Your task to perform on an android device: see sites visited before in the chrome app Image 0: 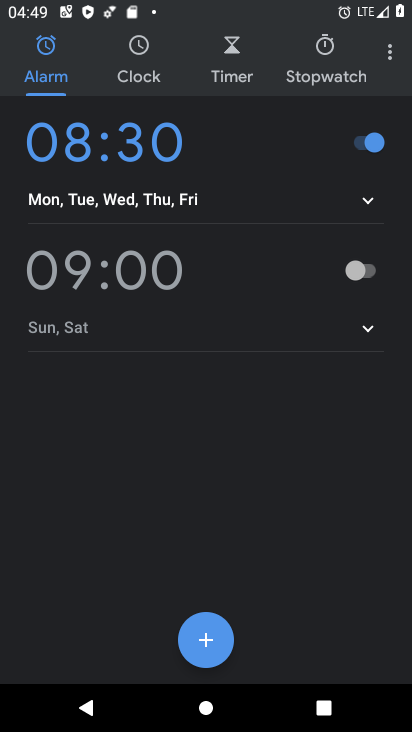
Step 0: press home button
Your task to perform on an android device: see sites visited before in the chrome app Image 1: 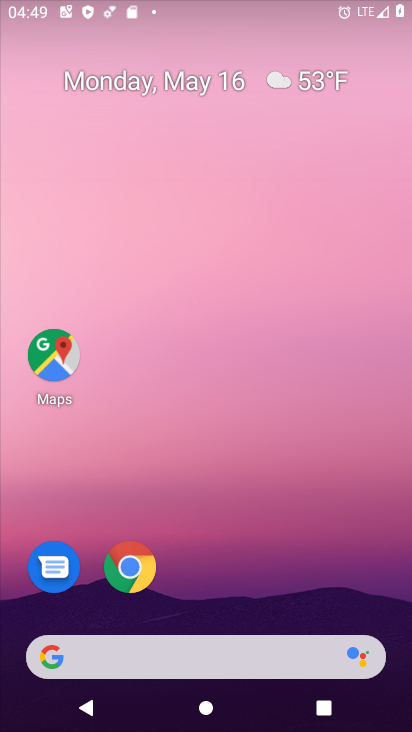
Step 1: drag from (262, 683) to (231, 75)
Your task to perform on an android device: see sites visited before in the chrome app Image 2: 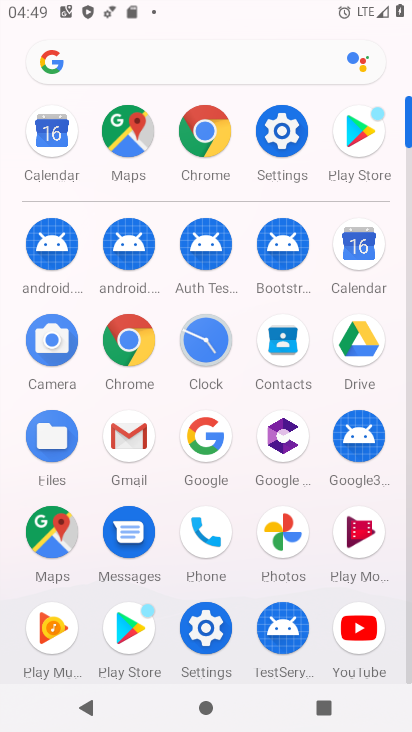
Step 2: click (138, 340)
Your task to perform on an android device: see sites visited before in the chrome app Image 3: 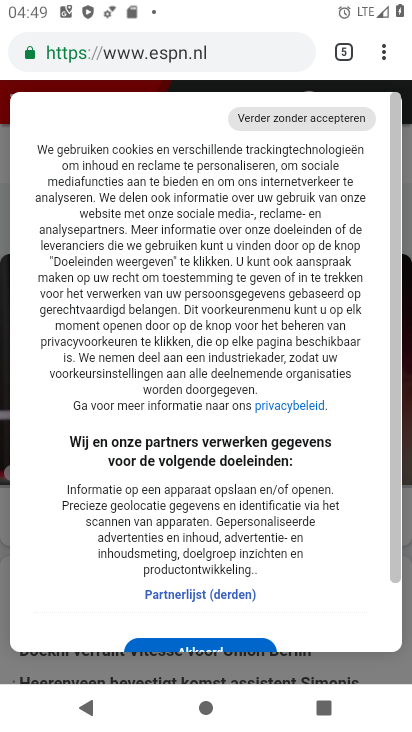
Step 3: click (385, 45)
Your task to perform on an android device: see sites visited before in the chrome app Image 4: 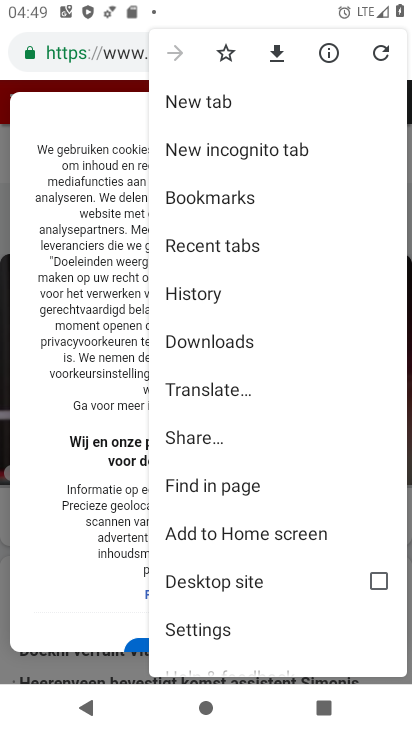
Step 4: drag from (195, 590) to (193, 158)
Your task to perform on an android device: see sites visited before in the chrome app Image 5: 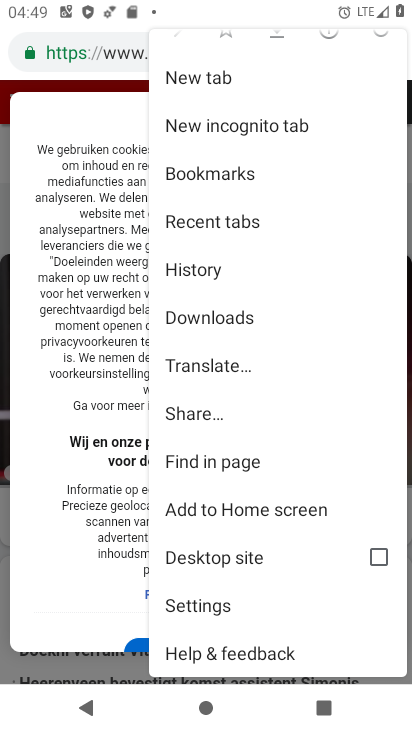
Step 5: drag from (251, 249) to (317, 676)
Your task to perform on an android device: see sites visited before in the chrome app Image 6: 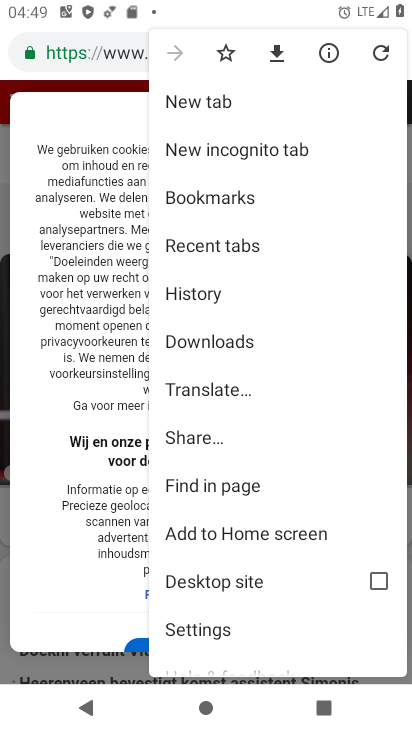
Step 6: click (212, 237)
Your task to perform on an android device: see sites visited before in the chrome app Image 7: 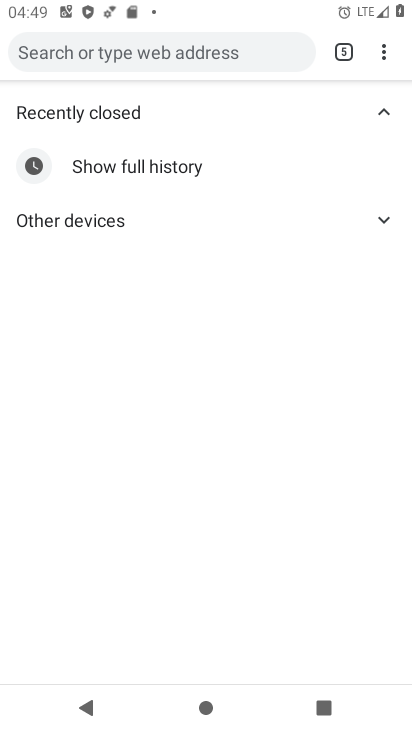
Step 7: task complete